Your task to perform on an android device: choose inbox layout in the gmail app Image 0: 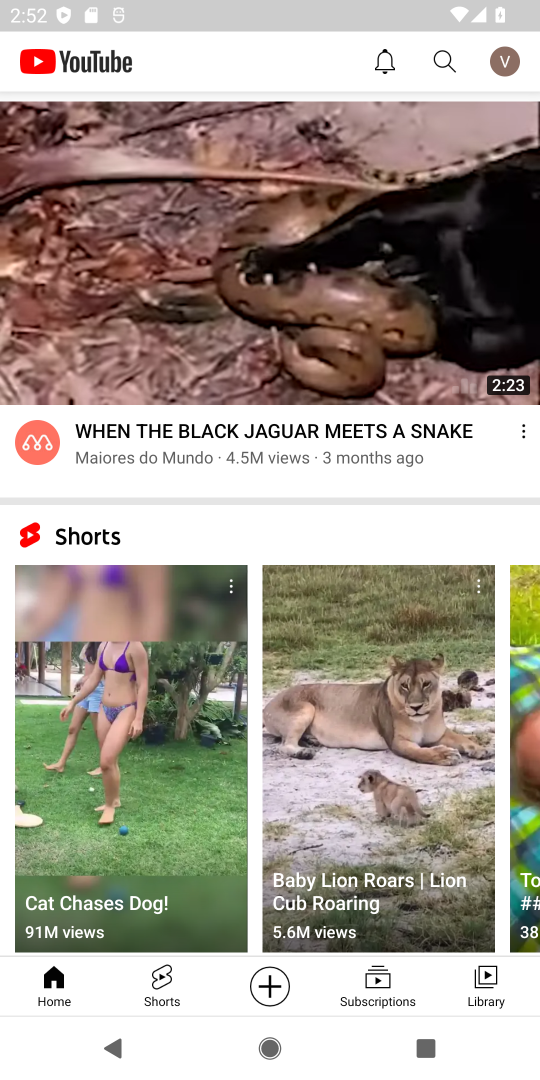
Step 0: press home button
Your task to perform on an android device: choose inbox layout in the gmail app Image 1: 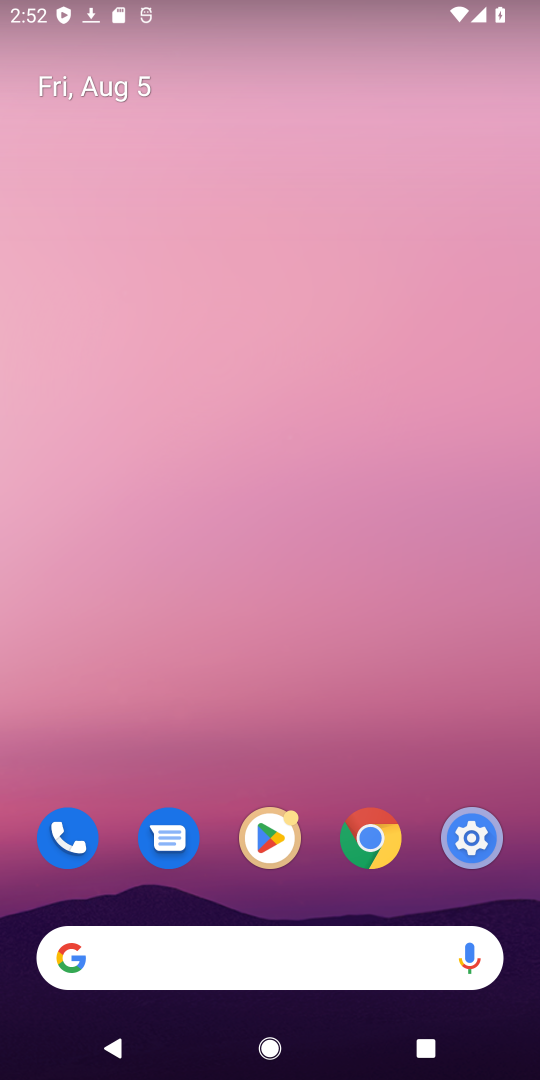
Step 1: drag from (430, 788) to (327, 128)
Your task to perform on an android device: choose inbox layout in the gmail app Image 2: 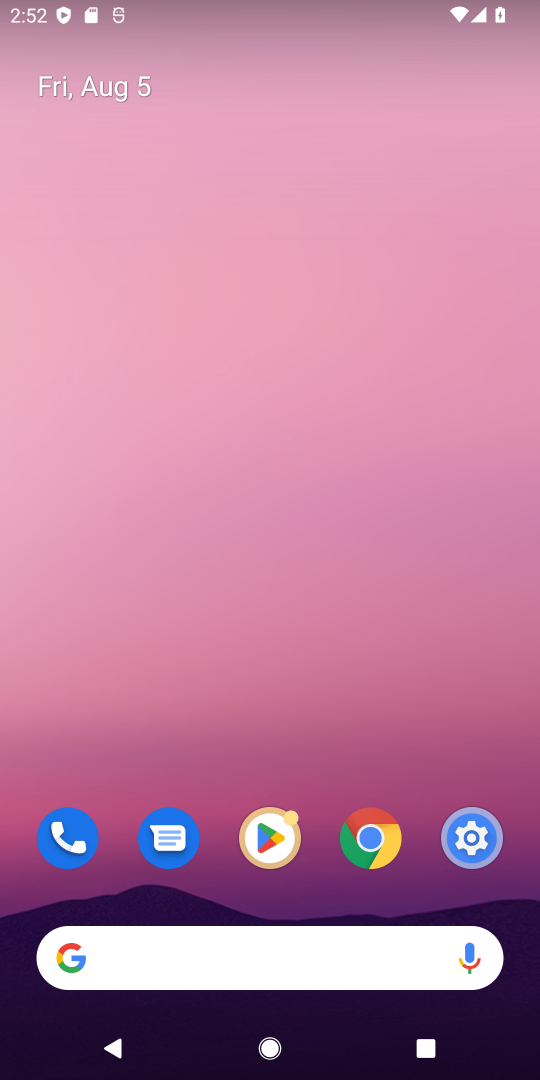
Step 2: drag from (429, 888) to (352, 188)
Your task to perform on an android device: choose inbox layout in the gmail app Image 3: 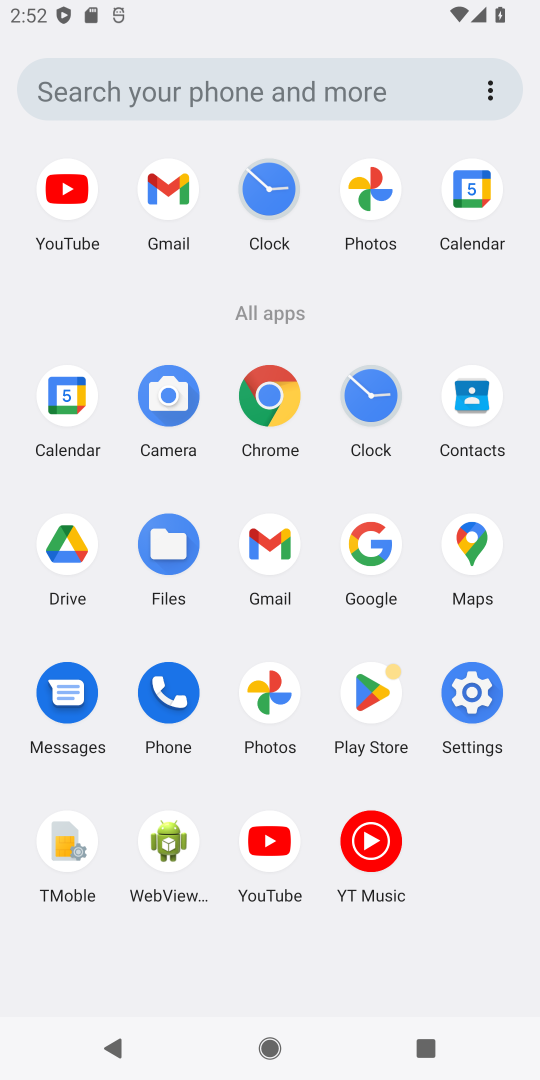
Step 3: click (182, 204)
Your task to perform on an android device: choose inbox layout in the gmail app Image 4: 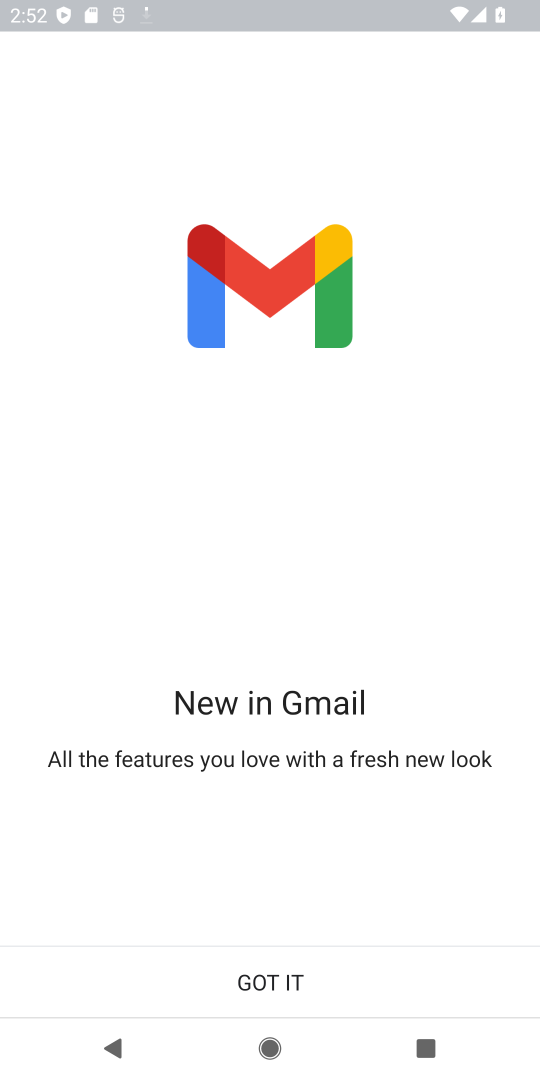
Step 4: click (286, 985)
Your task to perform on an android device: choose inbox layout in the gmail app Image 5: 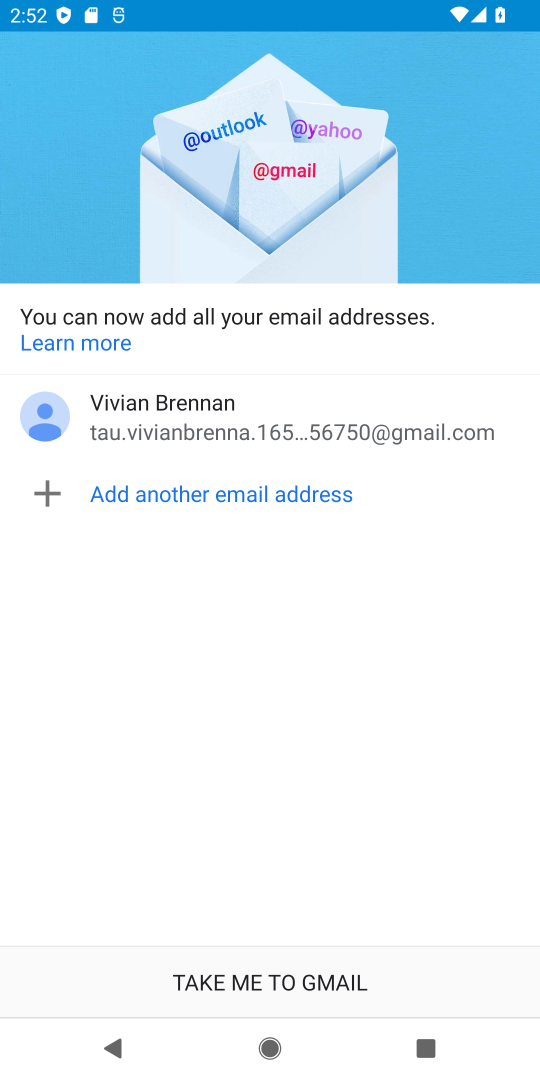
Step 5: click (362, 981)
Your task to perform on an android device: choose inbox layout in the gmail app Image 6: 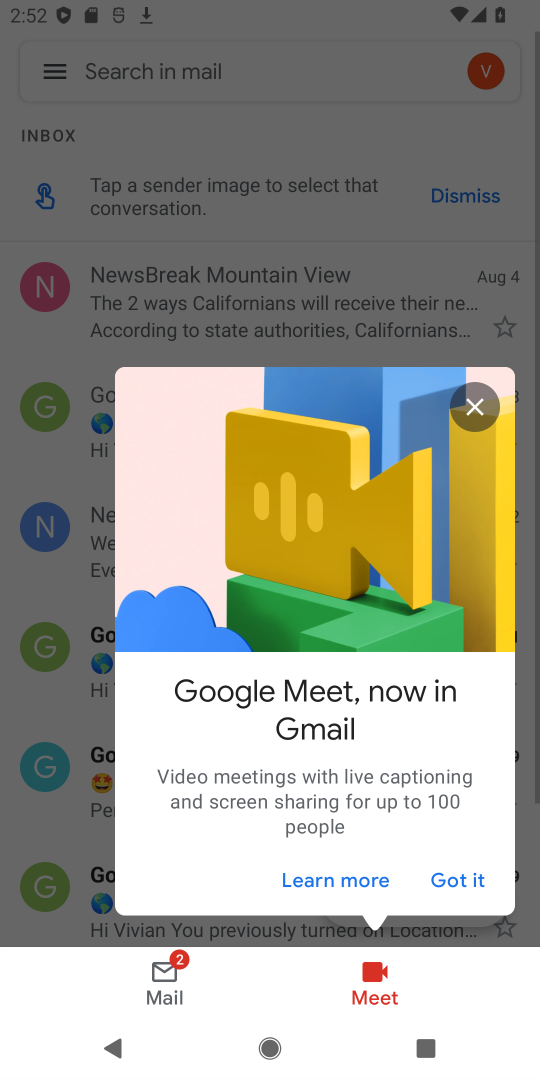
Step 6: click (468, 409)
Your task to perform on an android device: choose inbox layout in the gmail app Image 7: 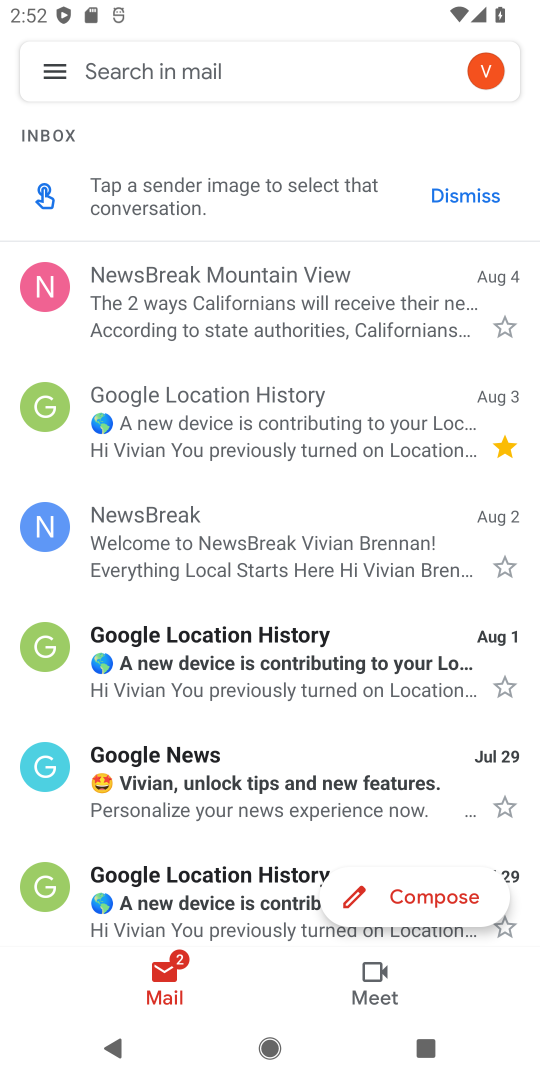
Step 7: click (50, 72)
Your task to perform on an android device: choose inbox layout in the gmail app Image 8: 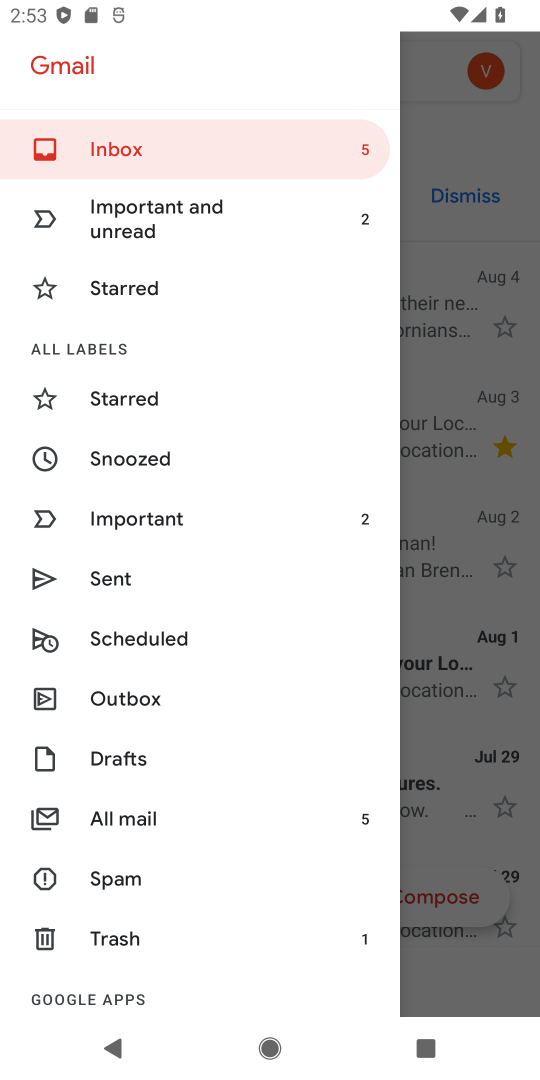
Step 8: drag from (163, 955) to (165, 224)
Your task to perform on an android device: choose inbox layout in the gmail app Image 9: 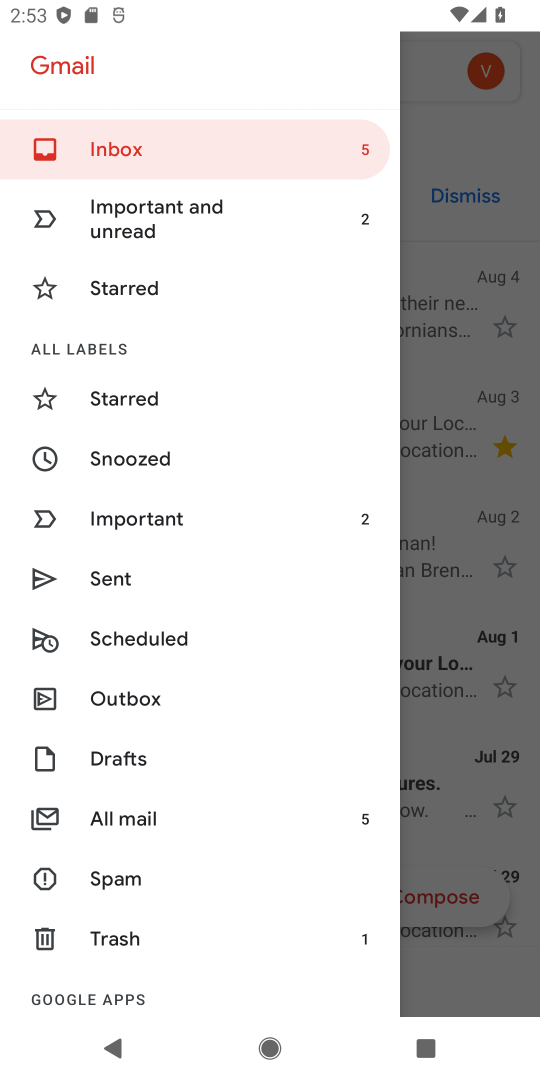
Step 9: drag from (237, 924) to (195, 199)
Your task to perform on an android device: choose inbox layout in the gmail app Image 10: 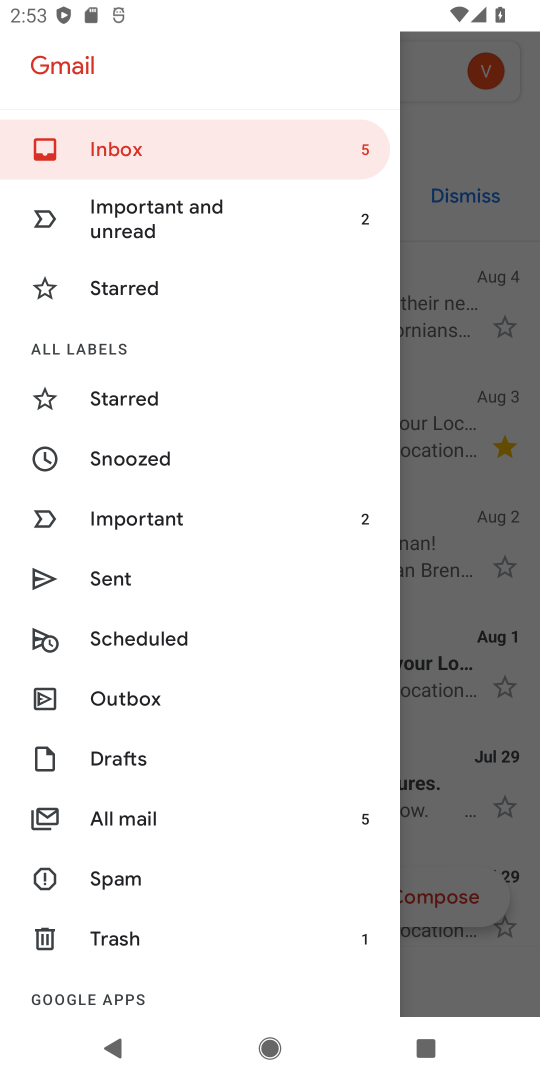
Step 10: drag from (198, 965) to (250, 496)
Your task to perform on an android device: choose inbox layout in the gmail app Image 11: 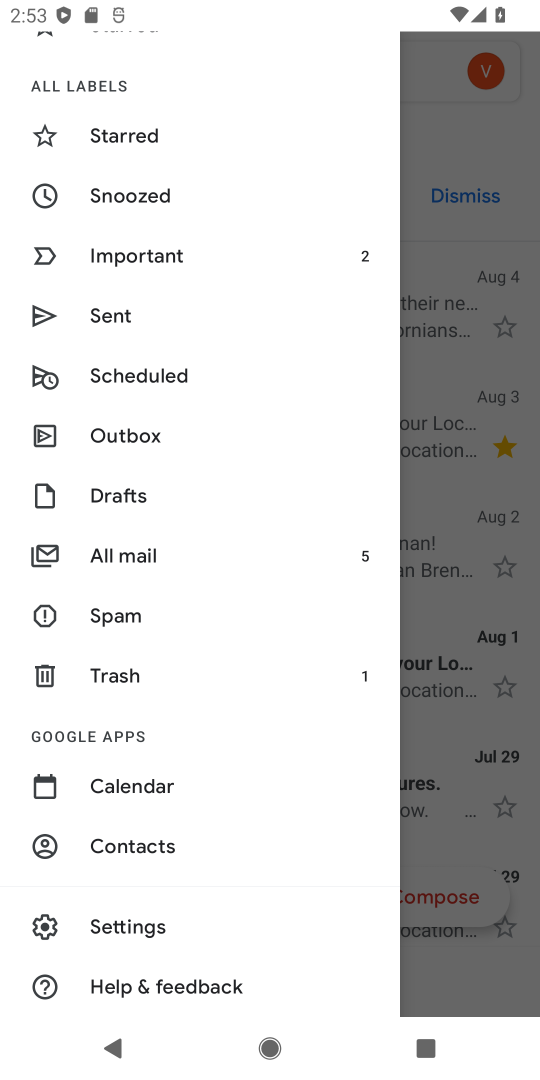
Step 11: click (177, 943)
Your task to perform on an android device: choose inbox layout in the gmail app Image 12: 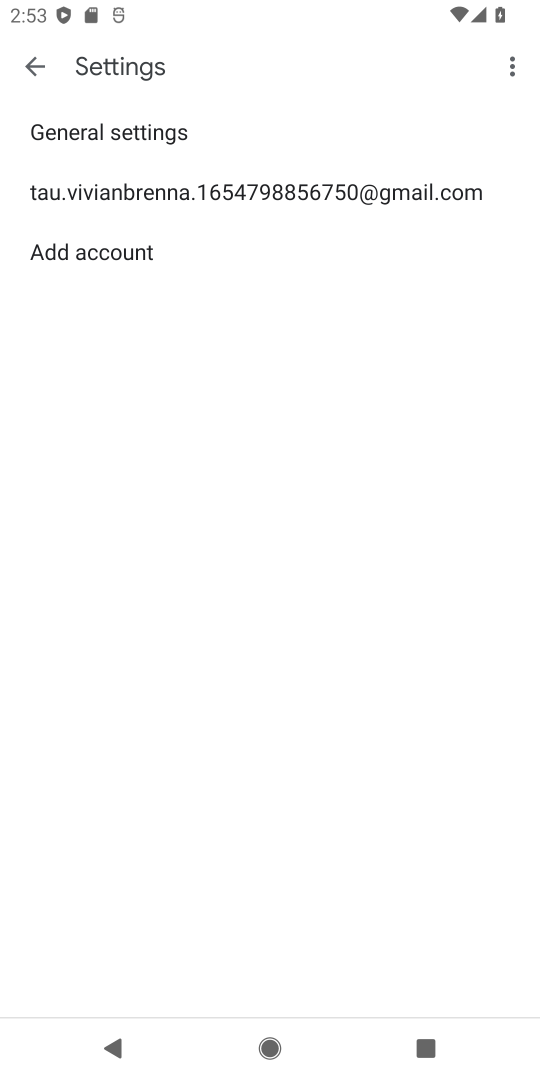
Step 12: click (310, 186)
Your task to perform on an android device: choose inbox layout in the gmail app Image 13: 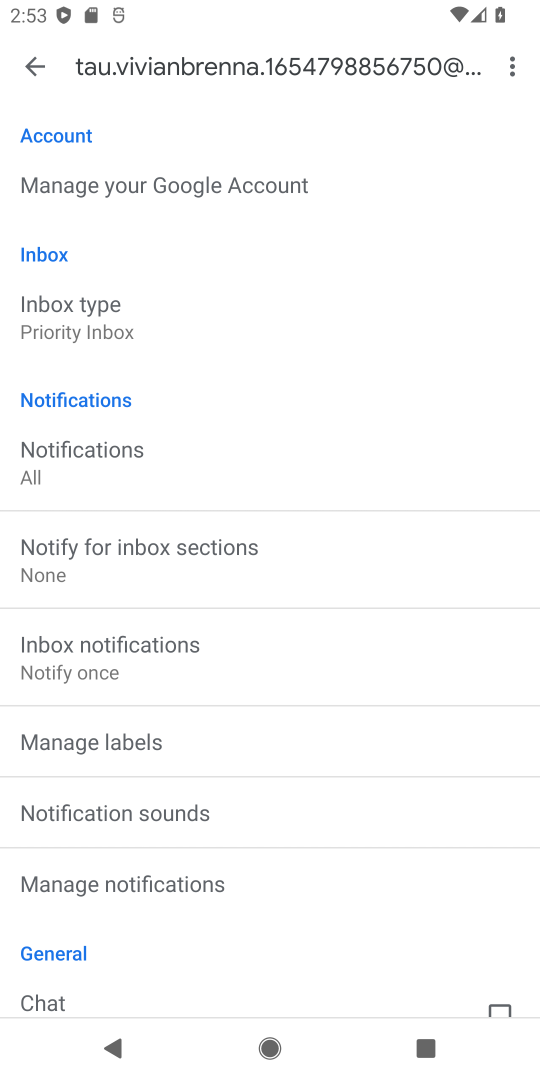
Step 13: click (98, 336)
Your task to perform on an android device: choose inbox layout in the gmail app Image 14: 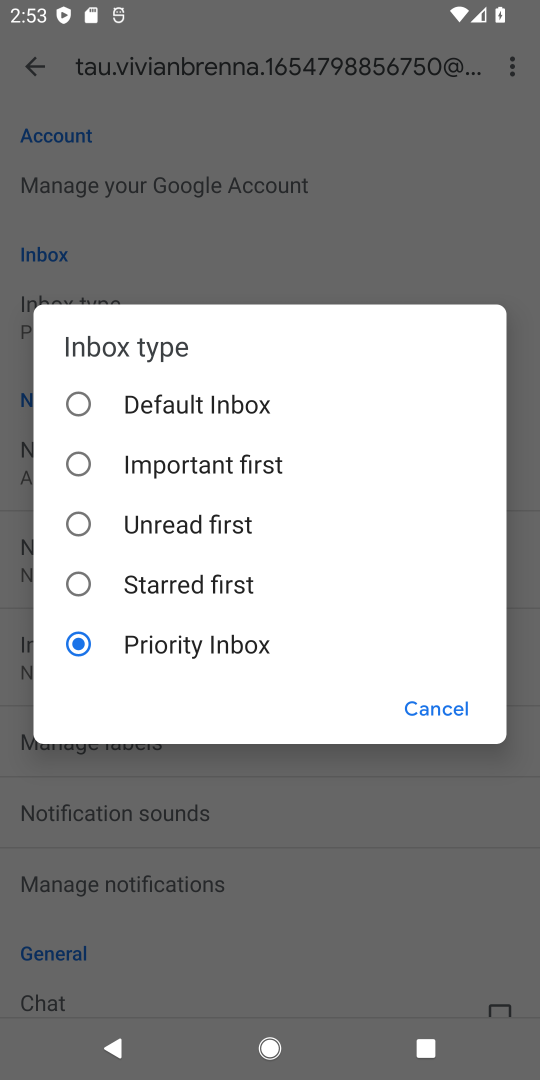
Step 14: click (195, 463)
Your task to perform on an android device: choose inbox layout in the gmail app Image 15: 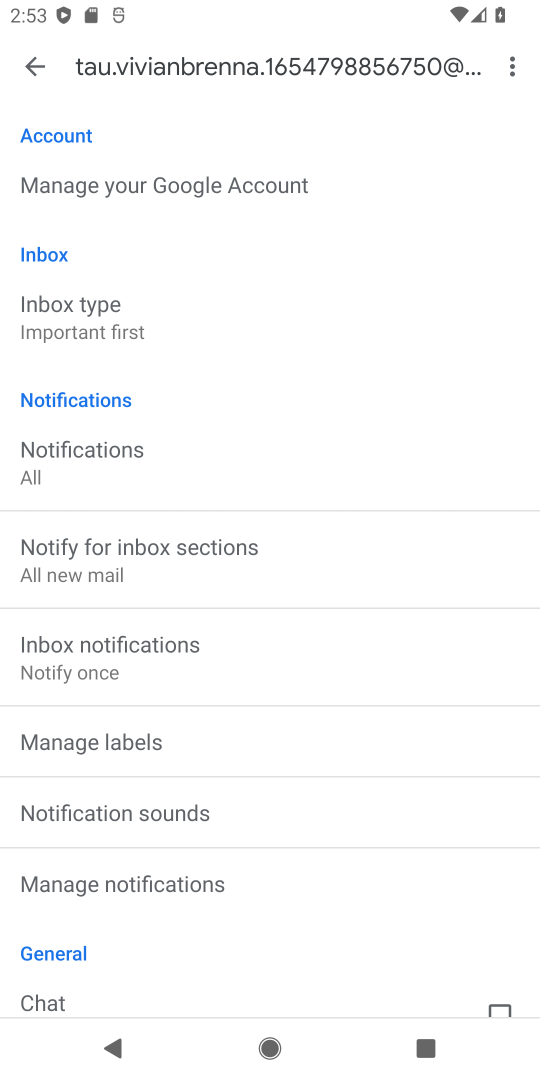
Step 15: task complete